Your task to perform on an android device: show emergency info Image 0: 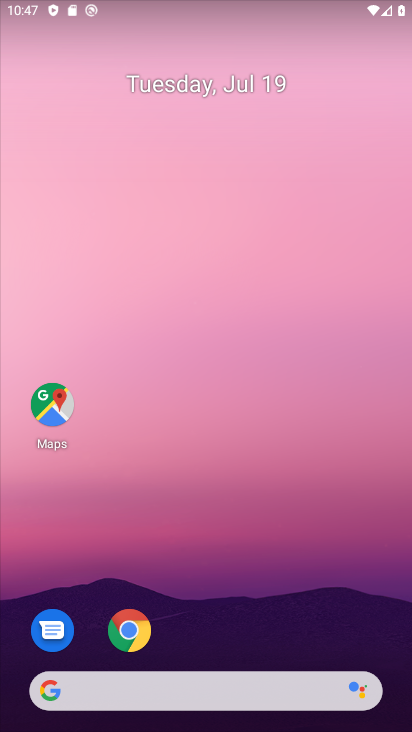
Step 0: drag from (170, 621) to (230, 153)
Your task to perform on an android device: show emergency info Image 1: 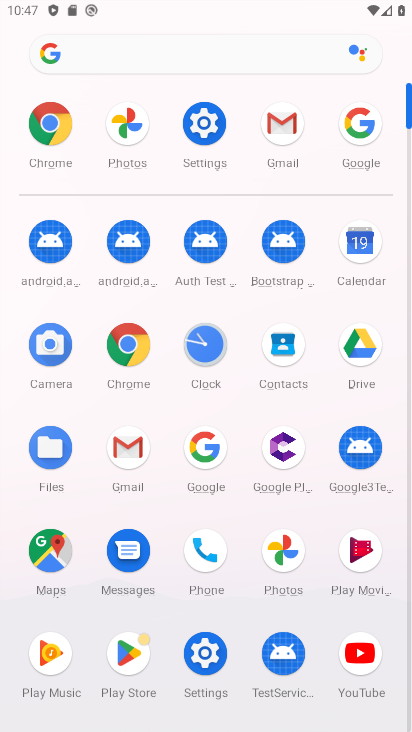
Step 1: click (203, 126)
Your task to perform on an android device: show emergency info Image 2: 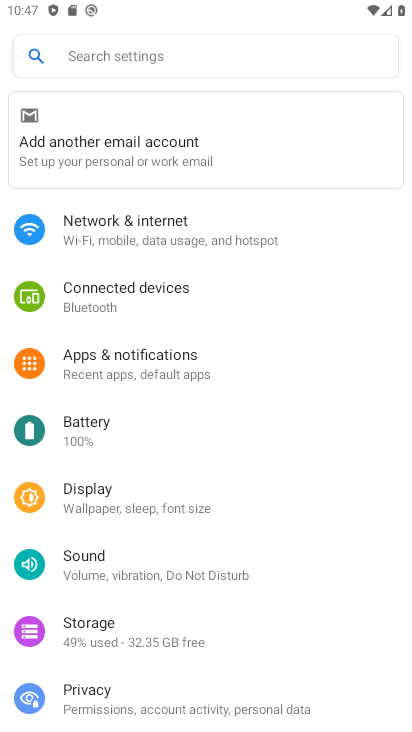
Step 2: drag from (140, 703) to (148, 333)
Your task to perform on an android device: show emergency info Image 3: 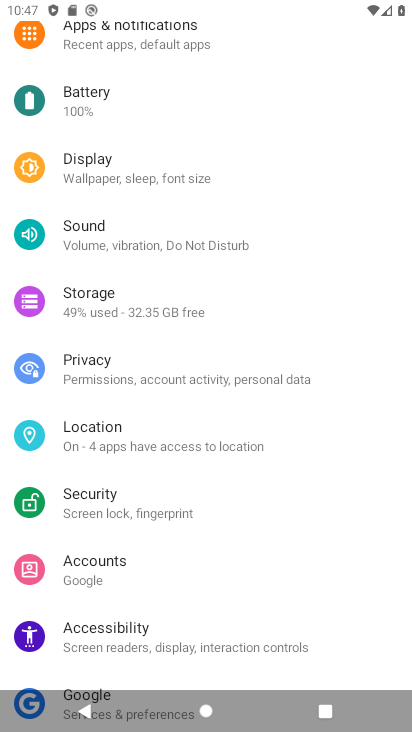
Step 3: drag from (130, 640) to (177, 190)
Your task to perform on an android device: show emergency info Image 4: 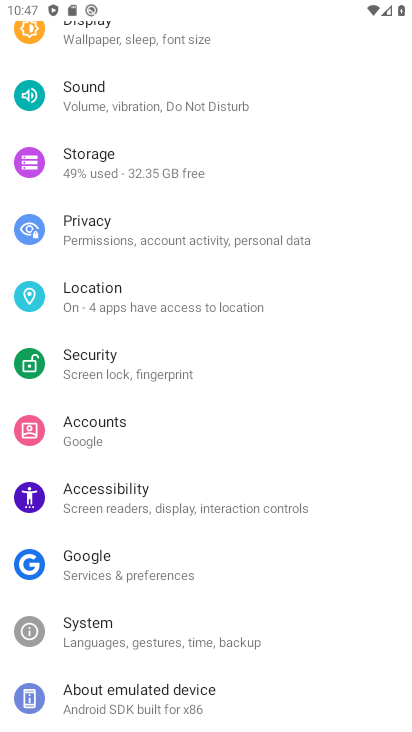
Step 4: drag from (145, 684) to (148, 261)
Your task to perform on an android device: show emergency info Image 5: 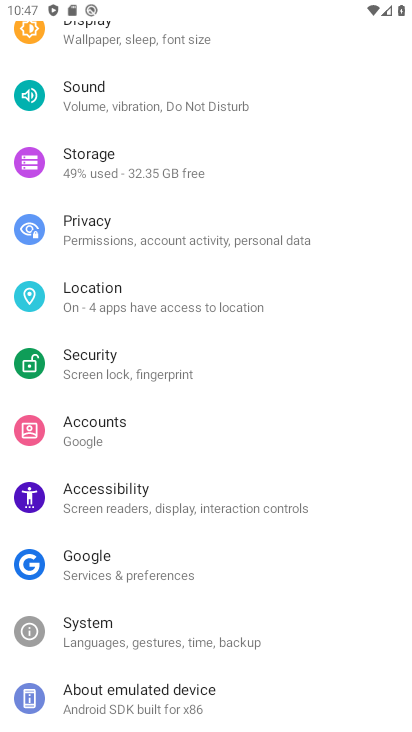
Step 5: click (130, 699)
Your task to perform on an android device: show emergency info Image 6: 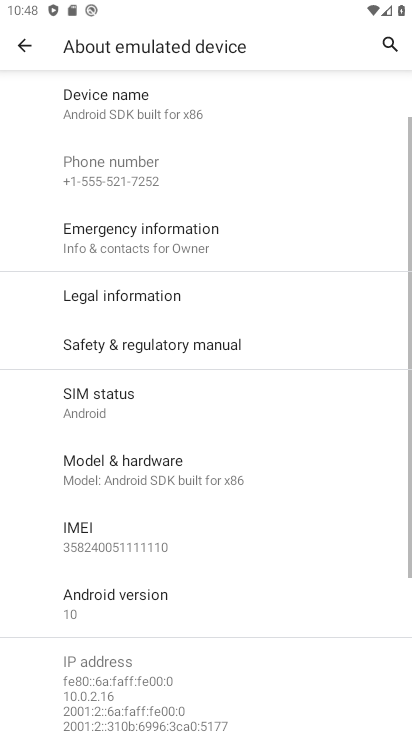
Step 6: drag from (203, 708) to (190, 299)
Your task to perform on an android device: show emergency info Image 7: 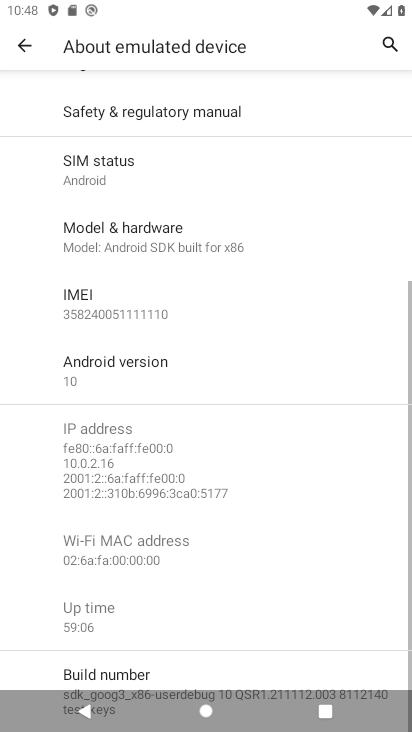
Step 7: drag from (180, 648) to (180, 252)
Your task to perform on an android device: show emergency info Image 8: 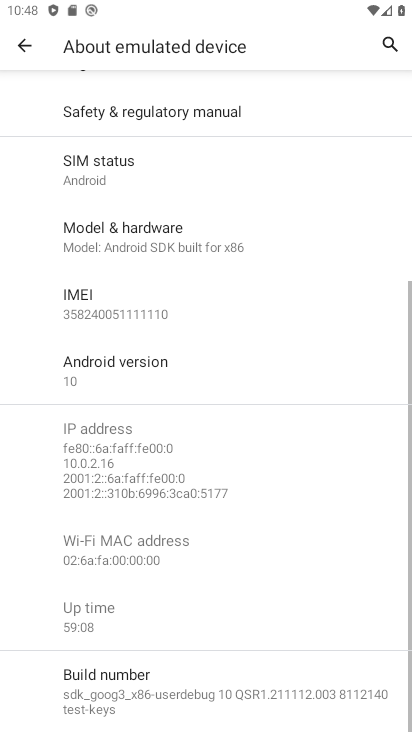
Step 8: drag from (238, 96) to (241, 462)
Your task to perform on an android device: show emergency info Image 9: 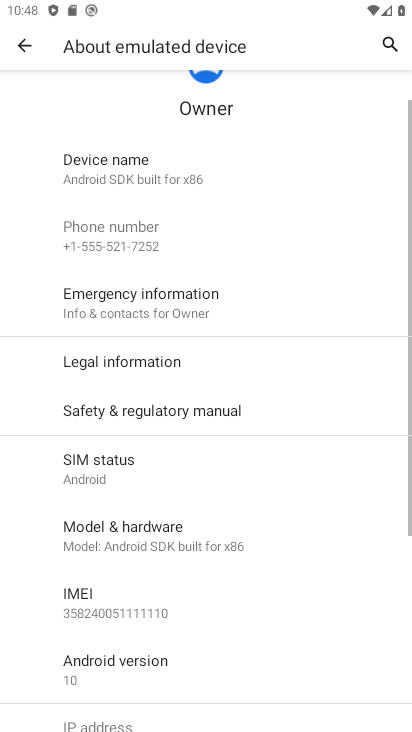
Step 9: click (163, 302)
Your task to perform on an android device: show emergency info Image 10: 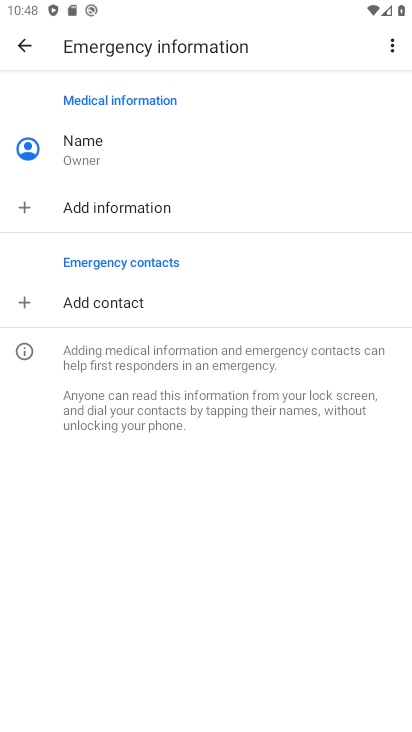
Step 10: task complete